Your task to perform on an android device: turn off javascript in the chrome app Image 0: 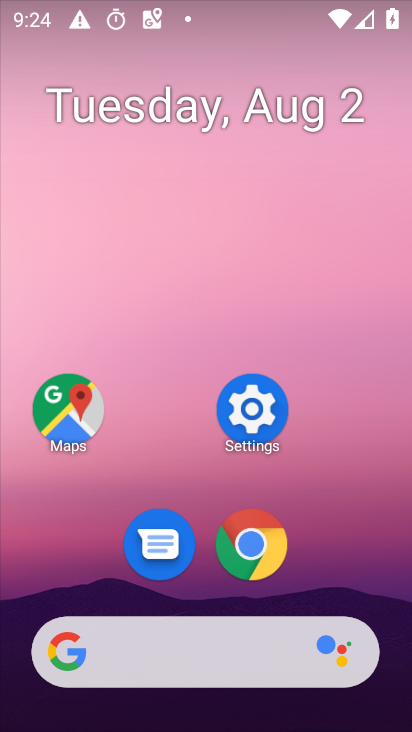
Step 0: click (266, 543)
Your task to perform on an android device: turn off javascript in the chrome app Image 1: 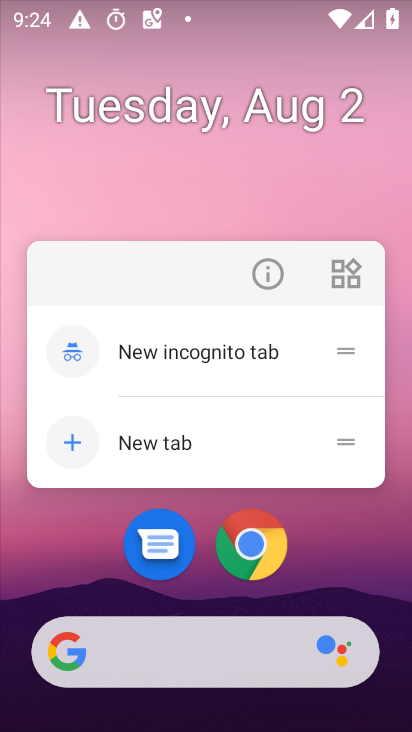
Step 1: click (255, 534)
Your task to perform on an android device: turn off javascript in the chrome app Image 2: 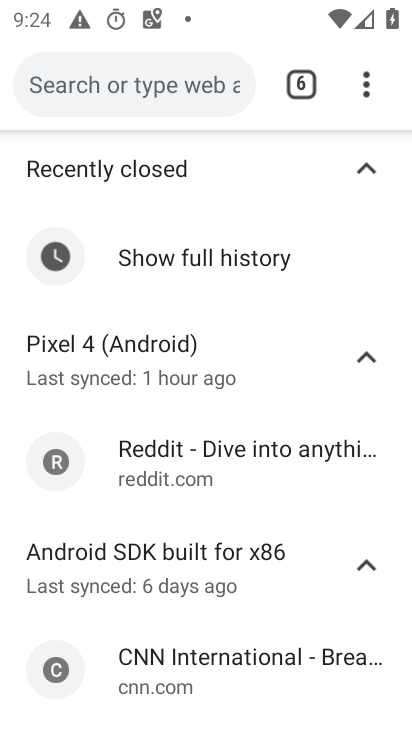
Step 2: drag from (366, 93) to (148, 593)
Your task to perform on an android device: turn off javascript in the chrome app Image 3: 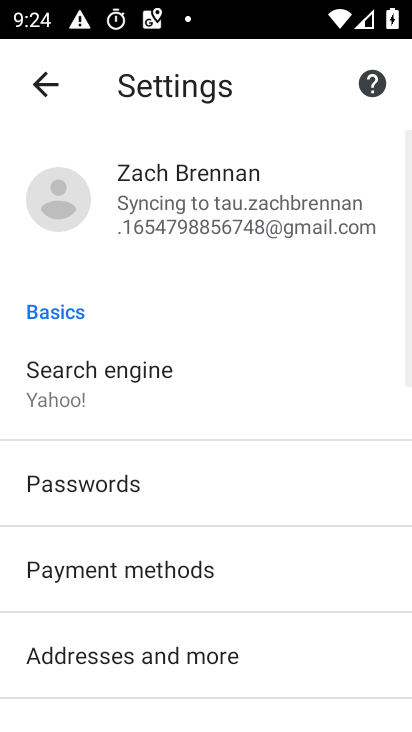
Step 3: drag from (236, 637) to (348, 328)
Your task to perform on an android device: turn off javascript in the chrome app Image 4: 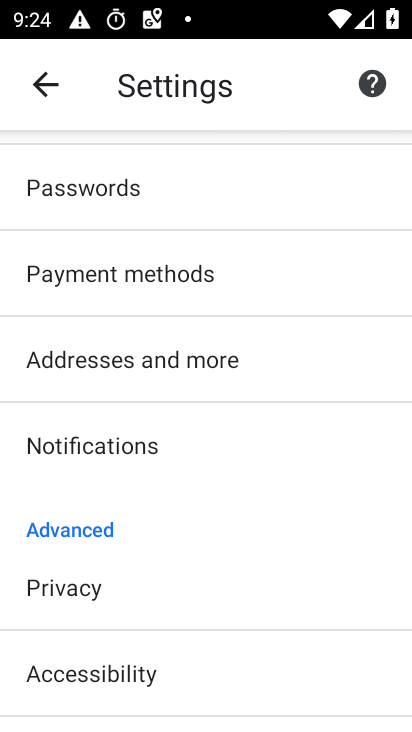
Step 4: drag from (218, 609) to (357, 180)
Your task to perform on an android device: turn off javascript in the chrome app Image 5: 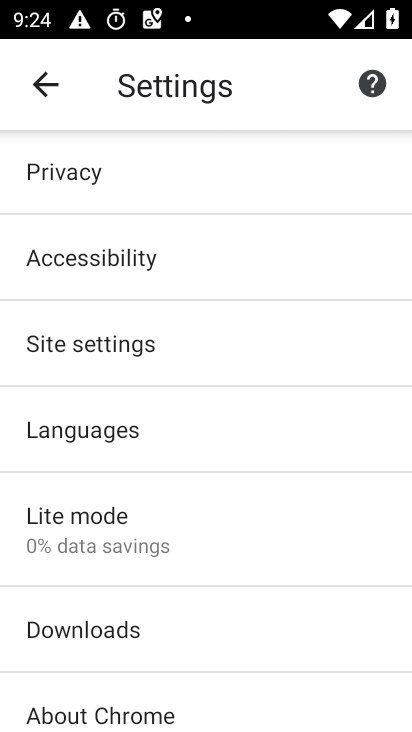
Step 5: click (98, 349)
Your task to perform on an android device: turn off javascript in the chrome app Image 6: 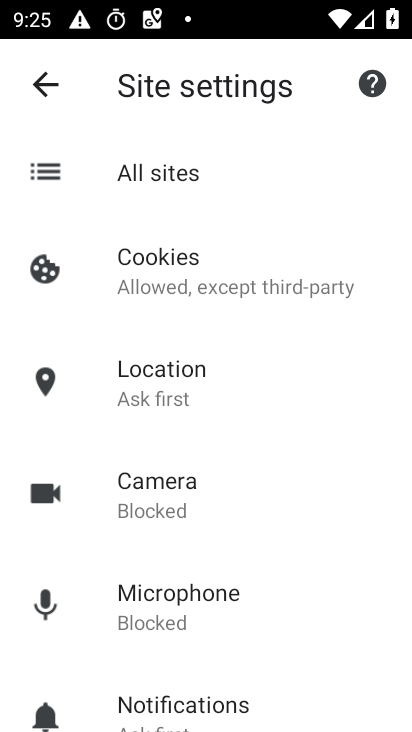
Step 6: drag from (265, 575) to (358, 201)
Your task to perform on an android device: turn off javascript in the chrome app Image 7: 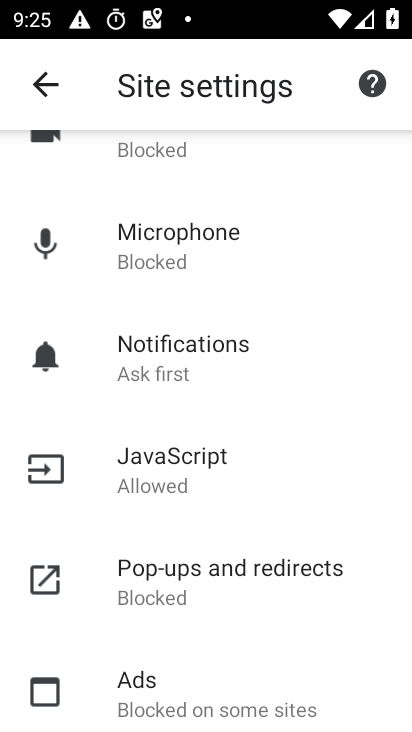
Step 7: click (211, 469)
Your task to perform on an android device: turn off javascript in the chrome app Image 8: 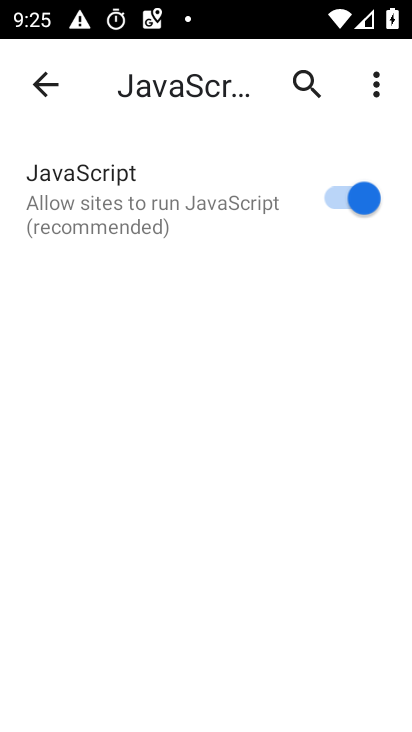
Step 8: click (341, 194)
Your task to perform on an android device: turn off javascript in the chrome app Image 9: 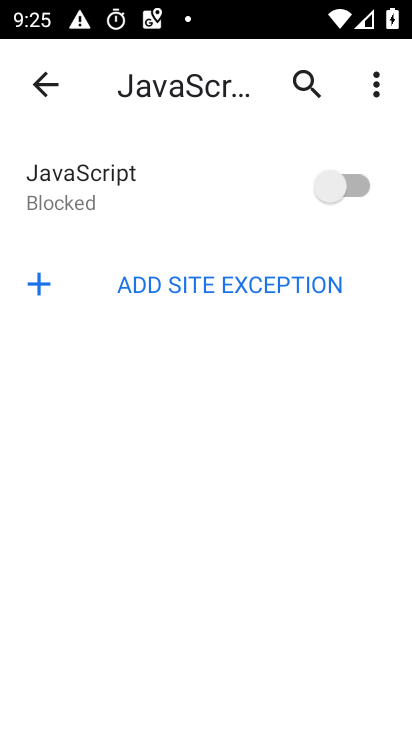
Step 9: task complete